Your task to perform on an android device: turn off smart reply in the gmail app Image 0: 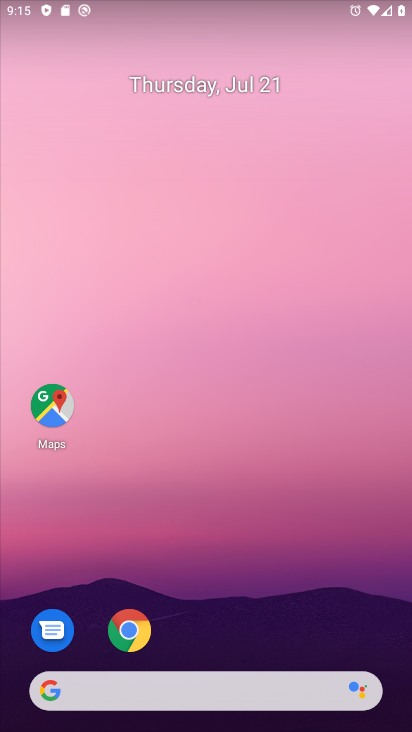
Step 0: drag from (269, 716) to (270, 166)
Your task to perform on an android device: turn off smart reply in the gmail app Image 1: 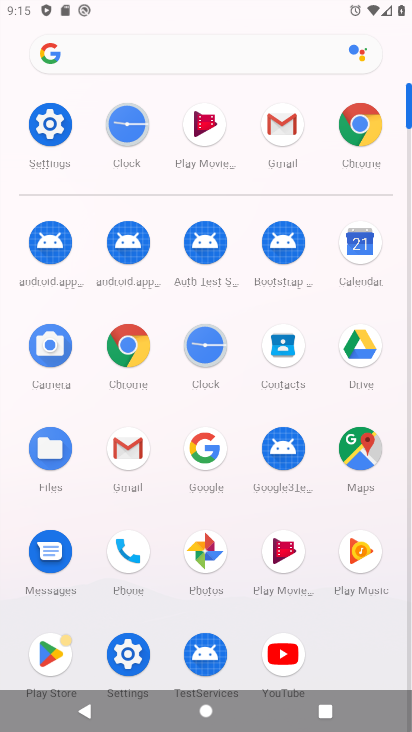
Step 1: click (124, 453)
Your task to perform on an android device: turn off smart reply in the gmail app Image 2: 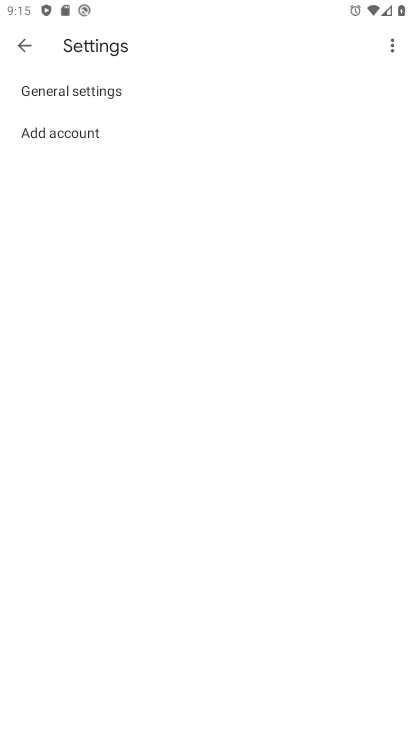
Step 2: click (24, 40)
Your task to perform on an android device: turn off smart reply in the gmail app Image 3: 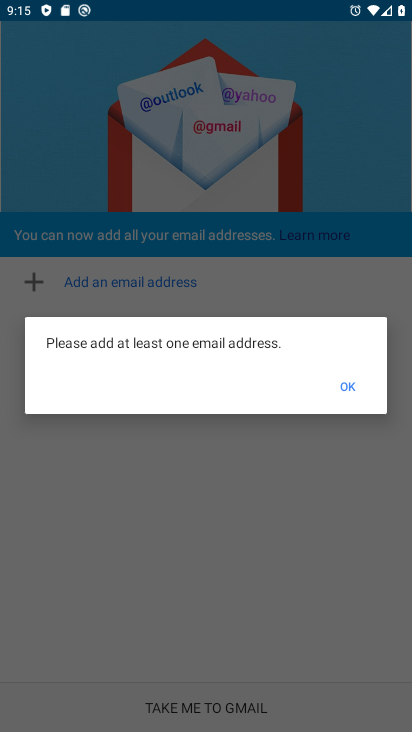
Step 3: click (348, 383)
Your task to perform on an android device: turn off smart reply in the gmail app Image 4: 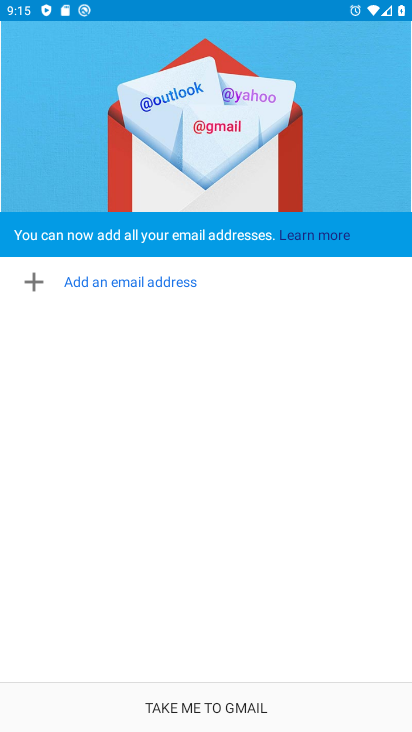
Step 4: task complete